Your task to perform on an android device: What's the weather going to be this weekend? Image 0: 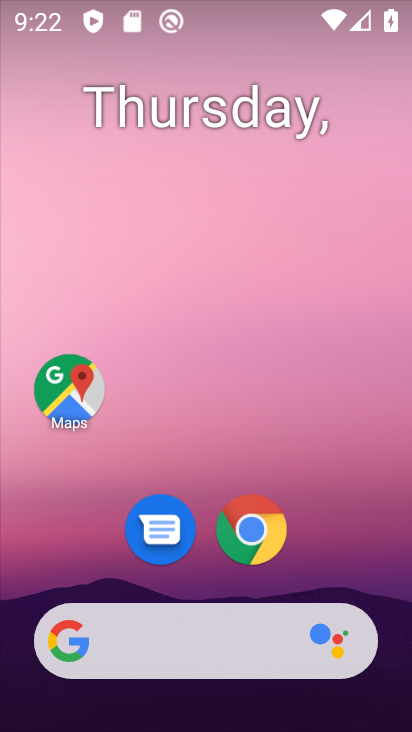
Step 0: drag from (327, 544) to (228, 22)
Your task to perform on an android device: What's the weather going to be this weekend? Image 1: 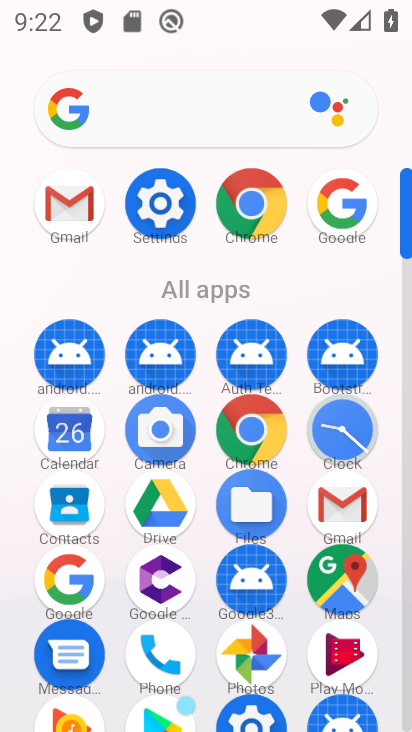
Step 1: click (336, 201)
Your task to perform on an android device: What's the weather going to be this weekend? Image 2: 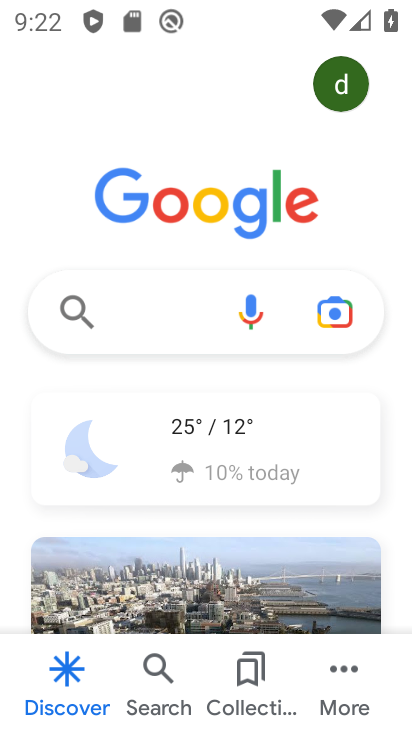
Step 2: click (175, 311)
Your task to perform on an android device: What's the weather going to be this weekend? Image 3: 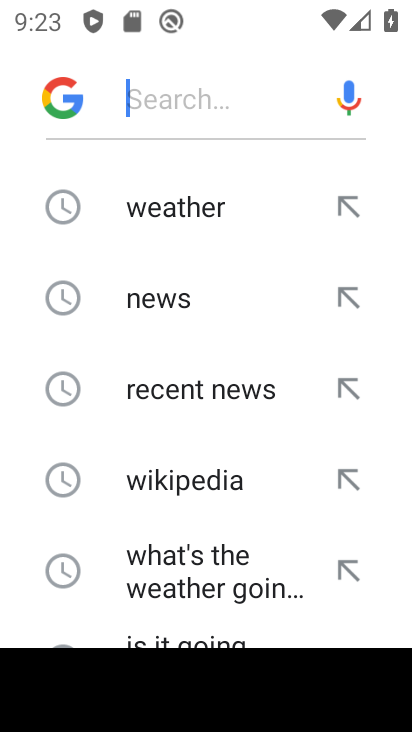
Step 3: type "What's the weather going to be this weekend?"
Your task to perform on an android device: What's the weather going to be this weekend? Image 4: 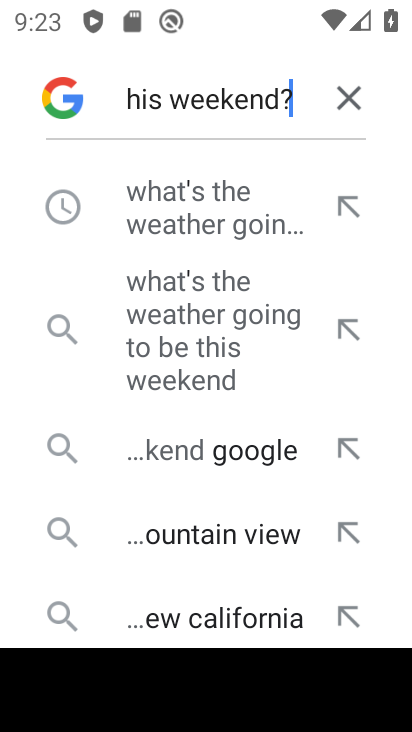
Step 4: click (211, 314)
Your task to perform on an android device: What's the weather going to be this weekend? Image 5: 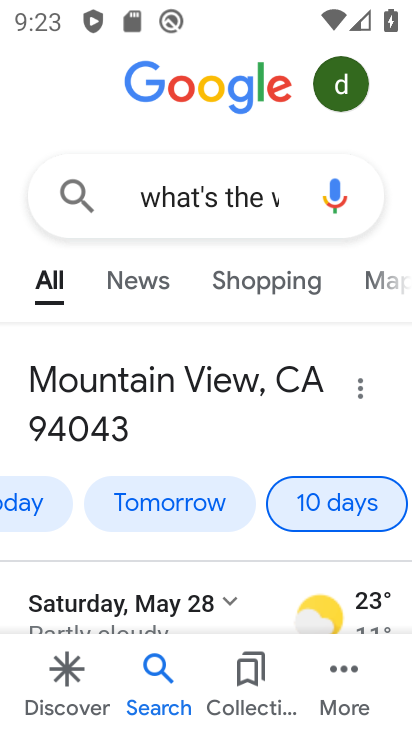
Step 5: task complete